Your task to perform on an android device: Go to Reddit.com Image 0: 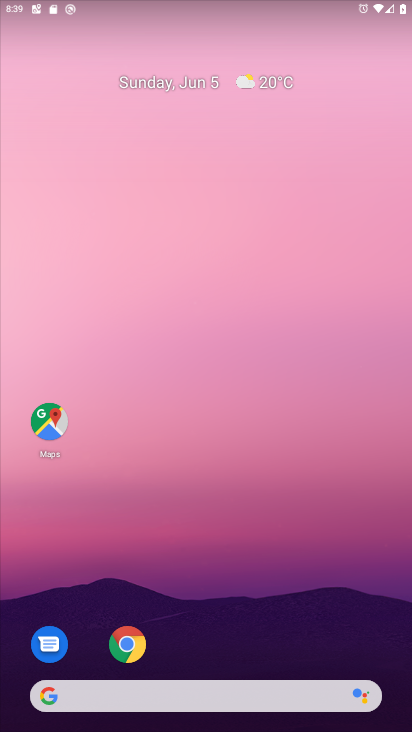
Step 0: drag from (316, 638) to (320, 232)
Your task to perform on an android device: Go to Reddit.com Image 1: 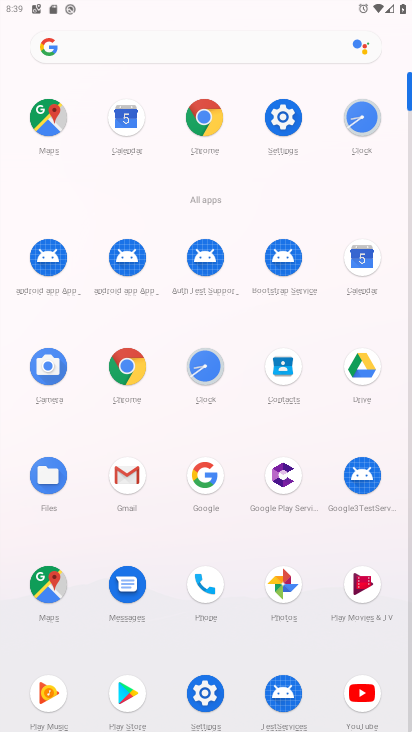
Step 1: click (140, 372)
Your task to perform on an android device: Go to Reddit.com Image 2: 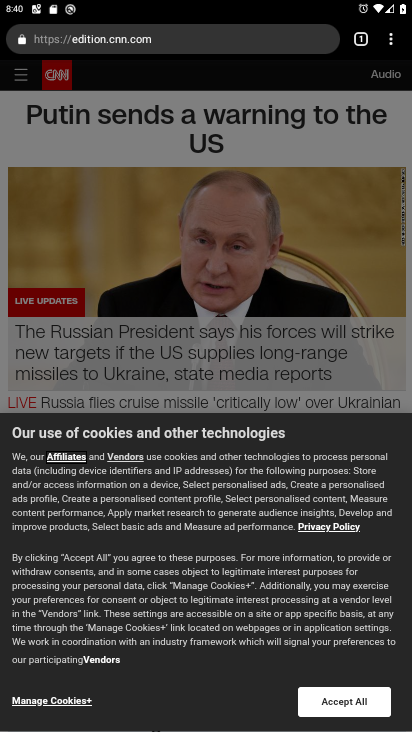
Step 2: click (190, 43)
Your task to perform on an android device: Go to Reddit.com Image 3: 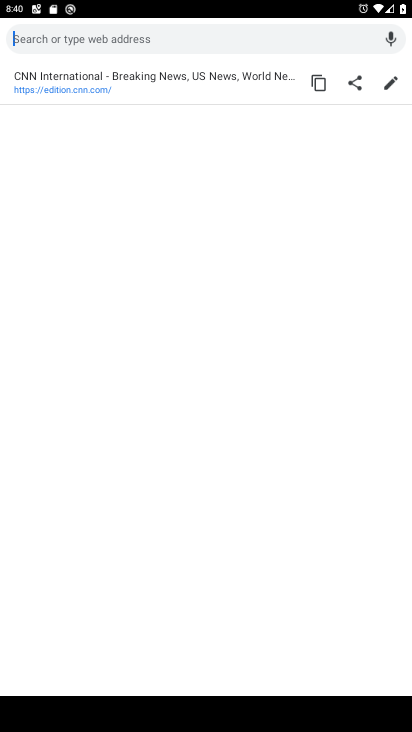
Step 3: type "reddit.com"
Your task to perform on an android device: Go to Reddit.com Image 4: 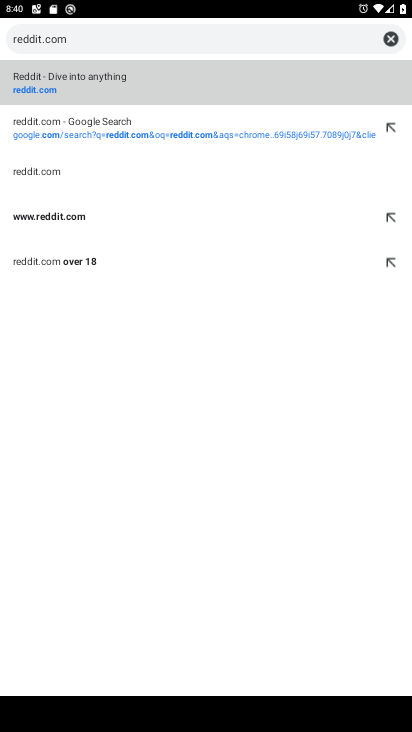
Step 4: click (112, 79)
Your task to perform on an android device: Go to Reddit.com Image 5: 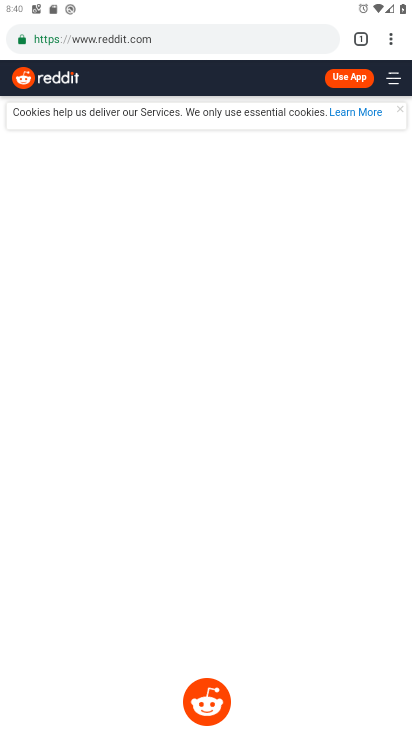
Step 5: task complete